Your task to perform on an android device: create a new album in the google photos Image 0: 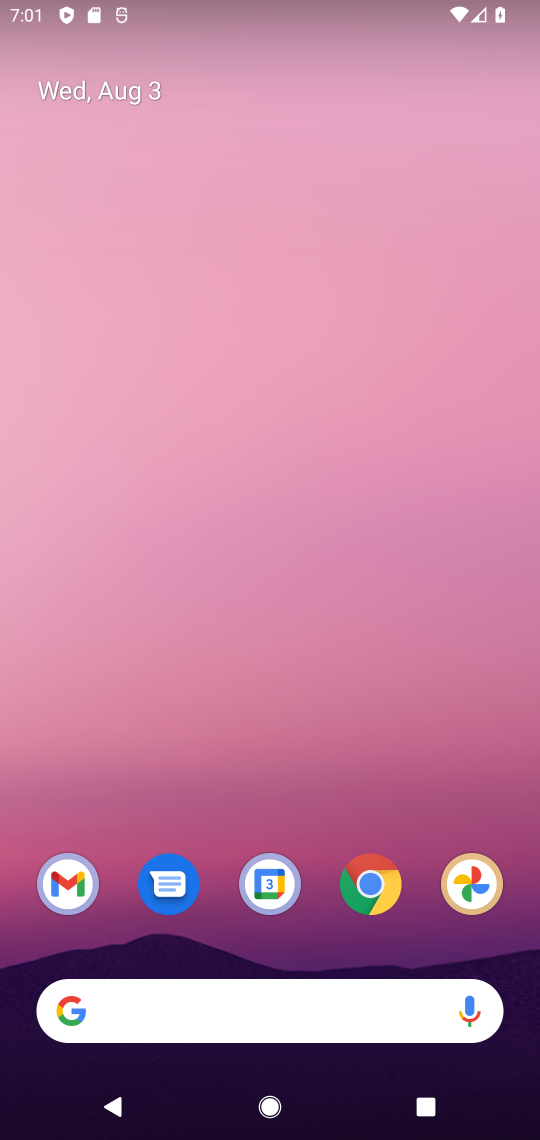
Step 0: drag from (309, 736) to (402, 13)
Your task to perform on an android device: create a new album in the google photos Image 1: 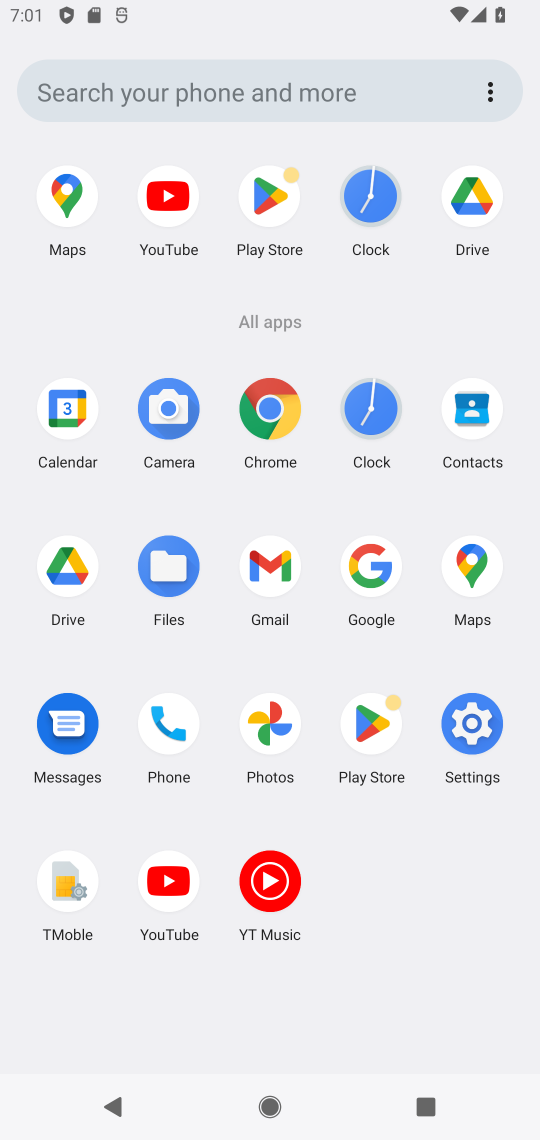
Step 1: click (266, 742)
Your task to perform on an android device: create a new album in the google photos Image 2: 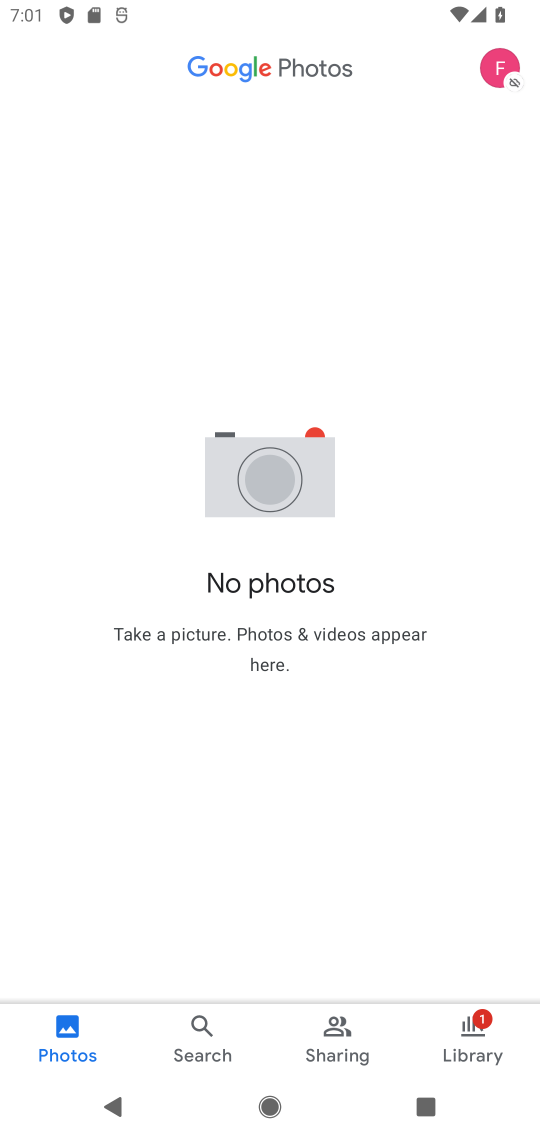
Step 2: task complete